Your task to perform on an android device: Open accessibility settings Image 0: 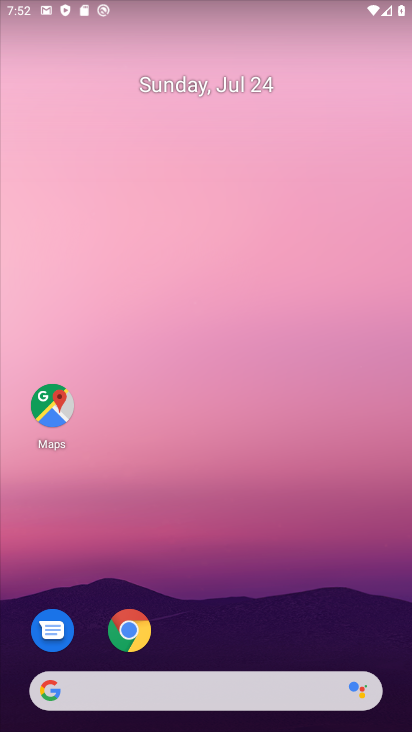
Step 0: drag from (296, 549) to (408, 260)
Your task to perform on an android device: Open accessibility settings Image 1: 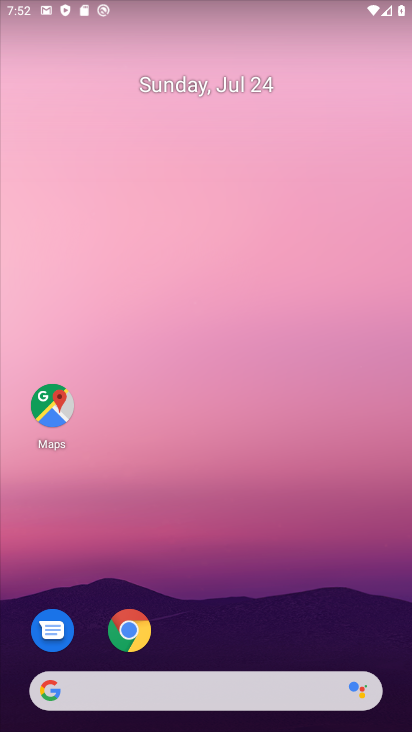
Step 1: drag from (334, 523) to (380, 230)
Your task to perform on an android device: Open accessibility settings Image 2: 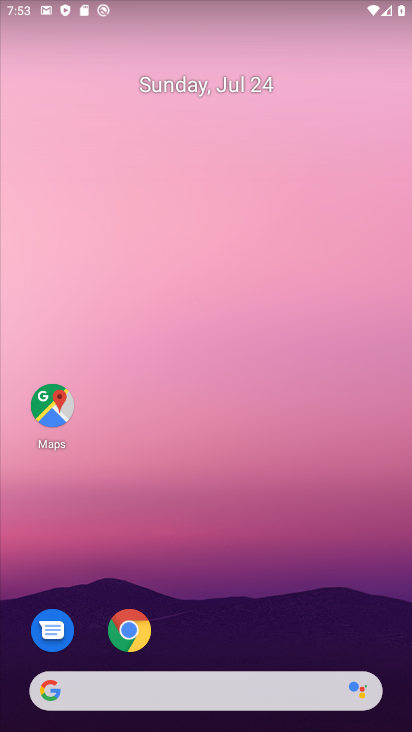
Step 2: drag from (219, 668) to (182, 51)
Your task to perform on an android device: Open accessibility settings Image 3: 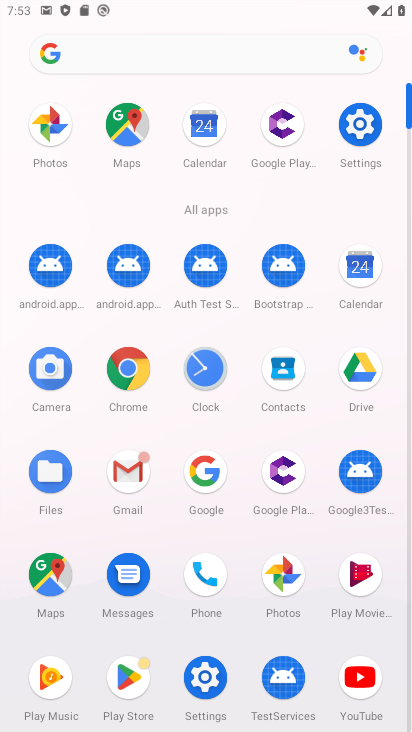
Step 3: drag from (276, 445) to (297, 36)
Your task to perform on an android device: Open accessibility settings Image 4: 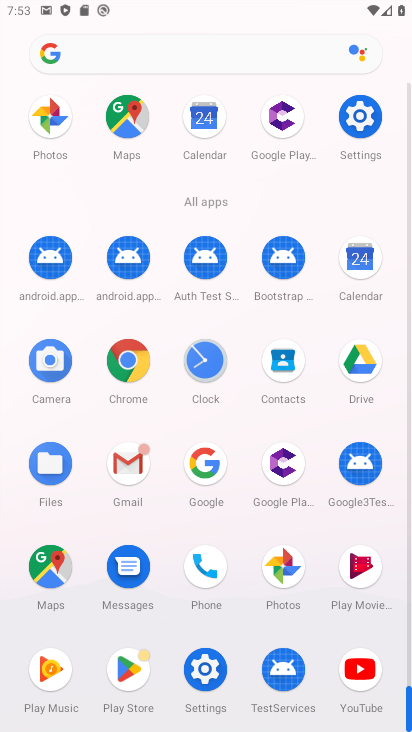
Step 4: click (201, 671)
Your task to perform on an android device: Open accessibility settings Image 5: 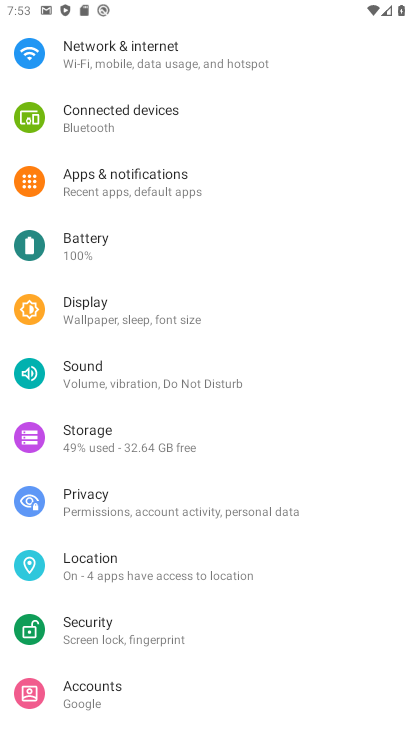
Step 5: drag from (97, 539) to (108, 259)
Your task to perform on an android device: Open accessibility settings Image 6: 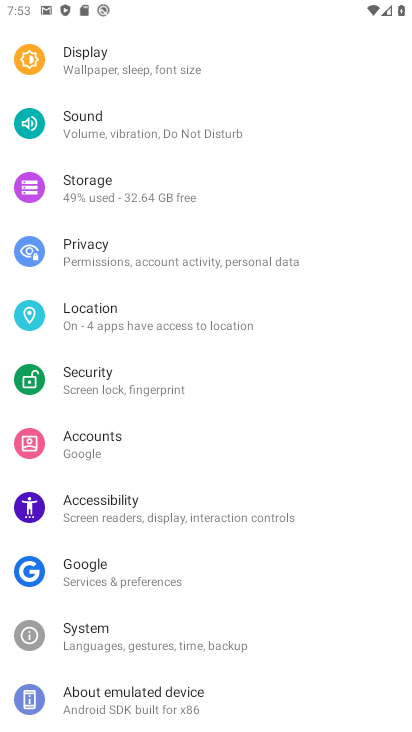
Step 6: click (127, 514)
Your task to perform on an android device: Open accessibility settings Image 7: 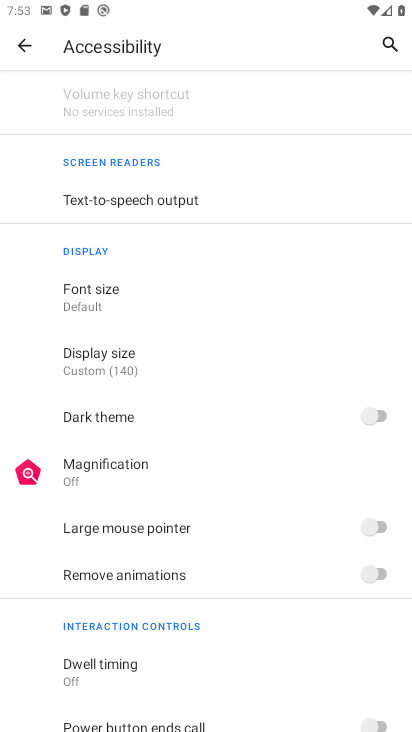
Step 7: task complete